Your task to perform on an android device: turn on the 24-hour format for clock Image 0: 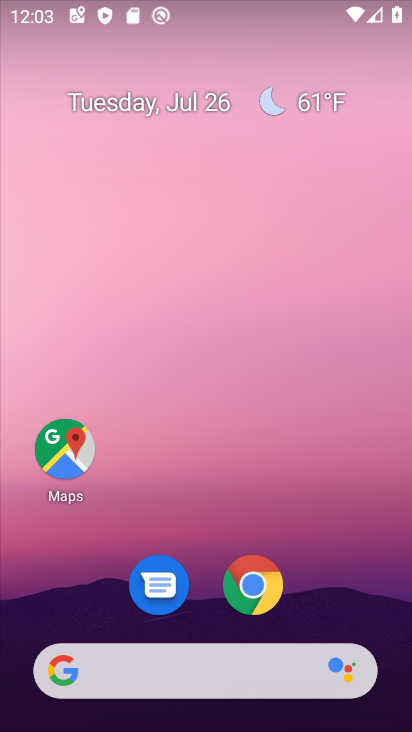
Step 0: drag from (329, 570) to (344, 17)
Your task to perform on an android device: turn on the 24-hour format for clock Image 1: 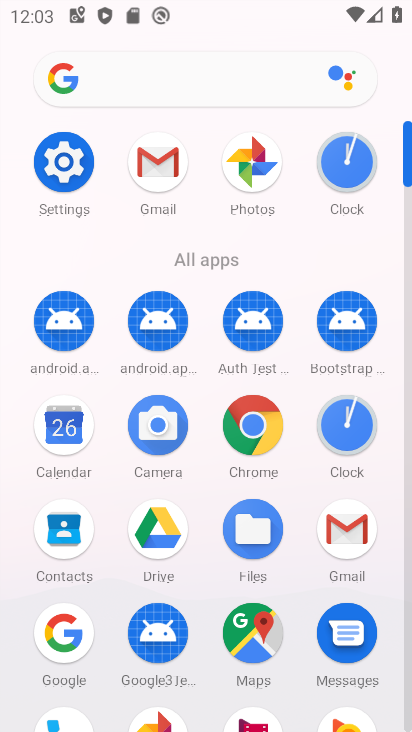
Step 1: click (331, 164)
Your task to perform on an android device: turn on the 24-hour format for clock Image 2: 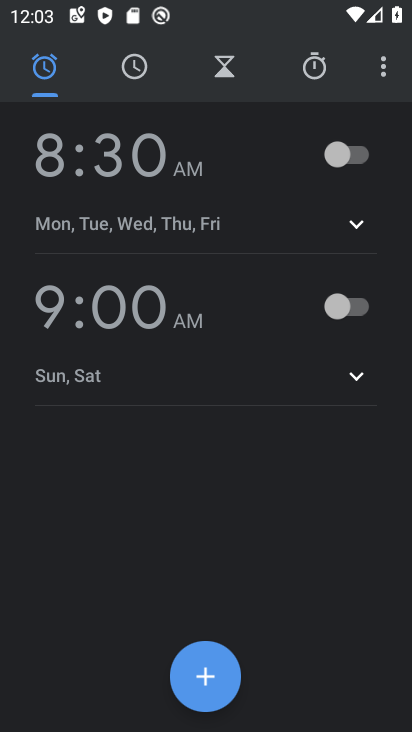
Step 2: click (380, 64)
Your task to perform on an android device: turn on the 24-hour format for clock Image 3: 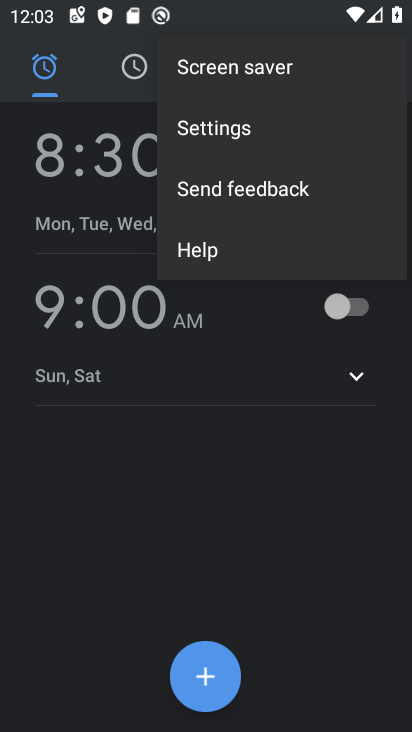
Step 3: click (278, 132)
Your task to perform on an android device: turn on the 24-hour format for clock Image 4: 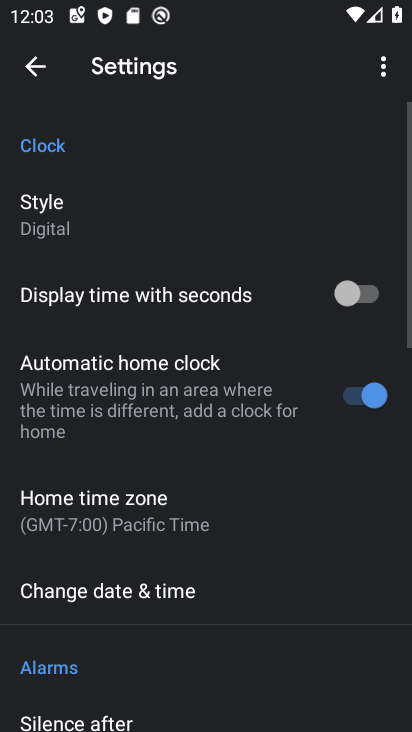
Step 4: click (257, 589)
Your task to perform on an android device: turn on the 24-hour format for clock Image 5: 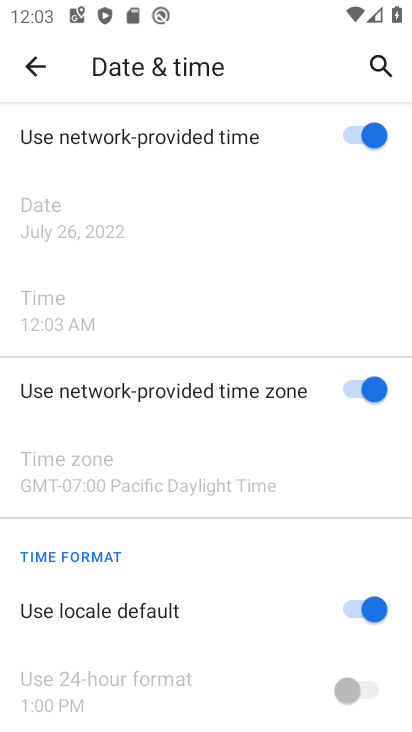
Step 5: click (352, 609)
Your task to perform on an android device: turn on the 24-hour format for clock Image 6: 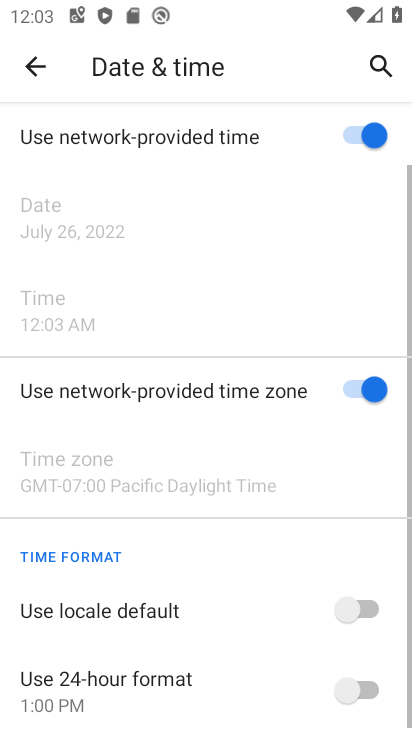
Step 6: click (360, 695)
Your task to perform on an android device: turn on the 24-hour format for clock Image 7: 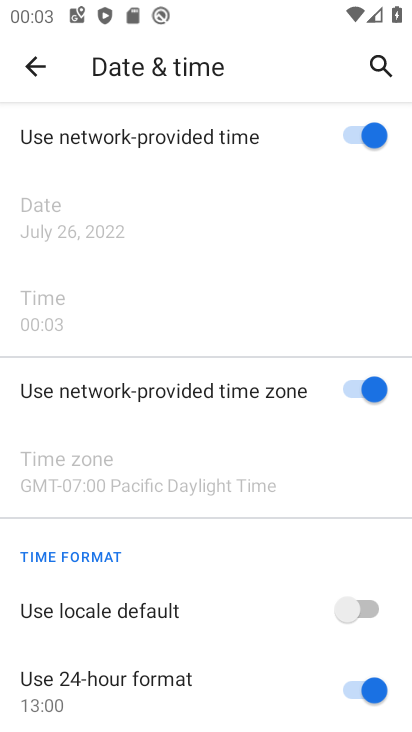
Step 7: task complete